Your task to perform on an android device: Open the web browser Image 0: 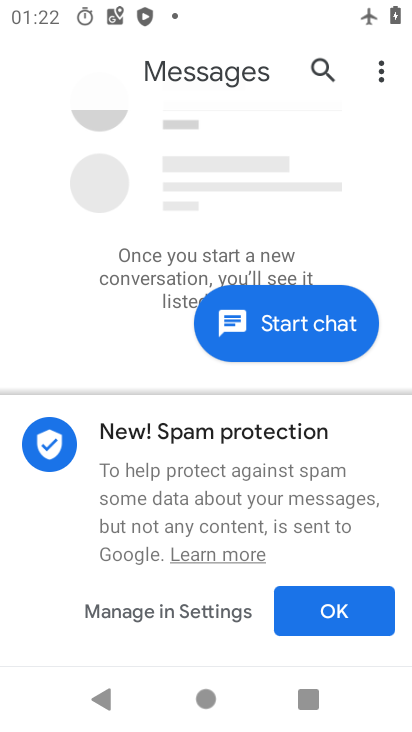
Step 0: press home button
Your task to perform on an android device: Open the web browser Image 1: 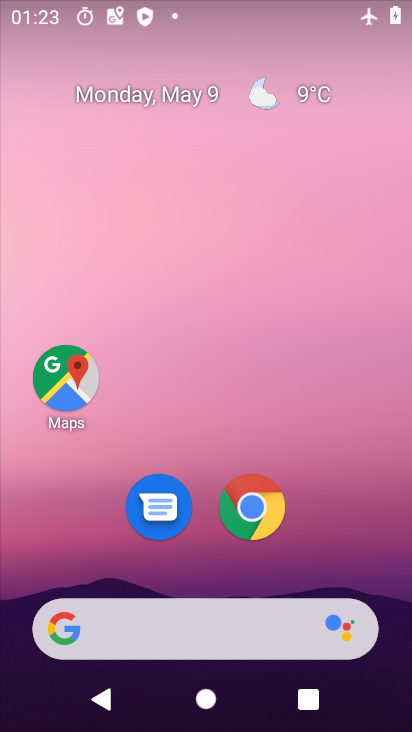
Step 1: click (250, 509)
Your task to perform on an android device: Open the web browser Image 2: 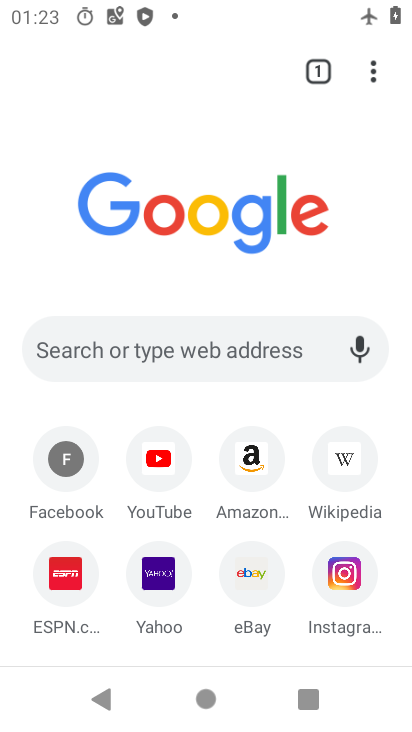
Step 2: task complete